Your task to perform on an android device: turn off notifications settings in the gmail app Image 0: 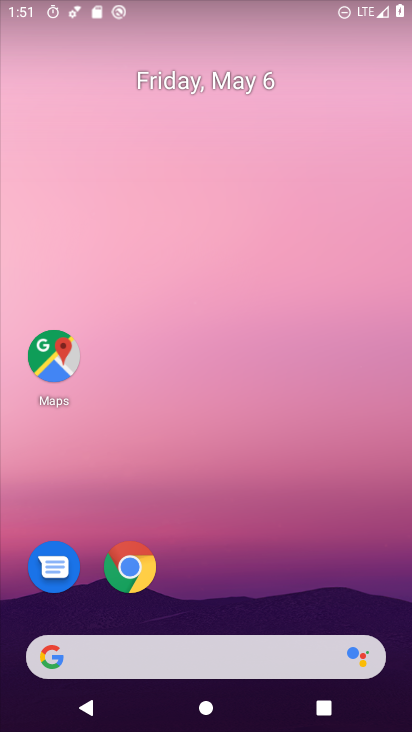
Step 0: drag from (157, 673) to (210, 160)
Your task to perform on an android device: turn off notifications settings in the gmail app Image 1: 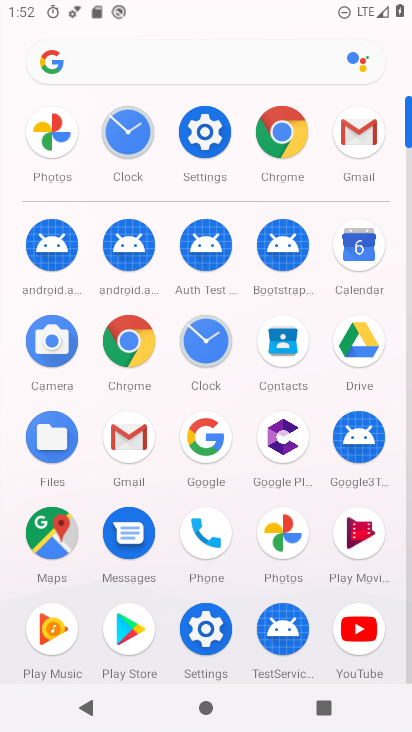
Step 1: click (355, 137)
Your task to perform on an android device: turn off notifications settings in the gmail app Image 2: 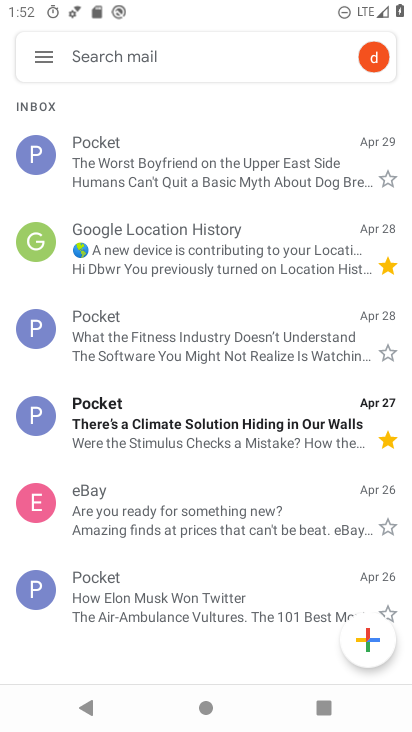
Step 2: click (49, 56)
Your task to perform on an android device: turn off notifications settings in the gmail app Image 3: 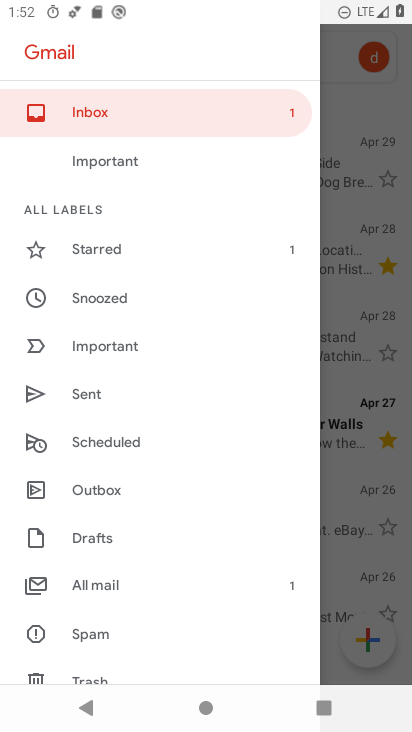
Step 3: drag from (110, 533) to (174, 179)
Your task to perform on an android device: turn off notifications settings in the gmail app Image 4: 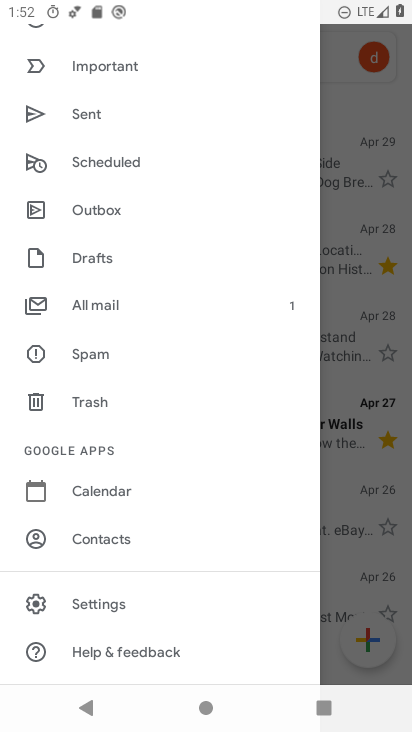
Step 4: click (104, 605)
Your task to perform on an android device: turn off notifications settings in the gmail app Image 5: 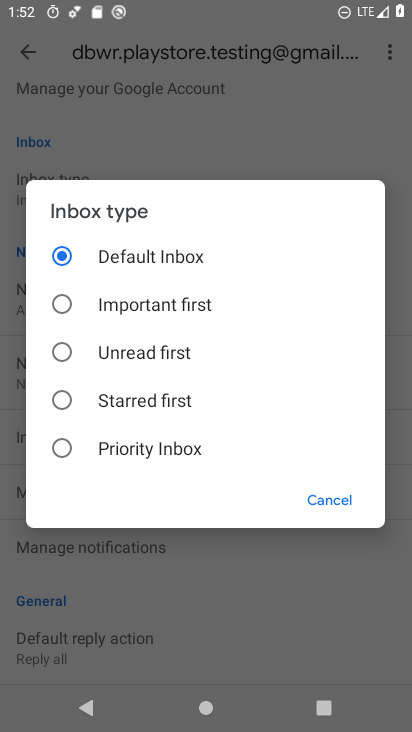
Step 5: click (320, 510)
Your task to perform on an android device: turn off notifications settings in the gmail app Image 6: 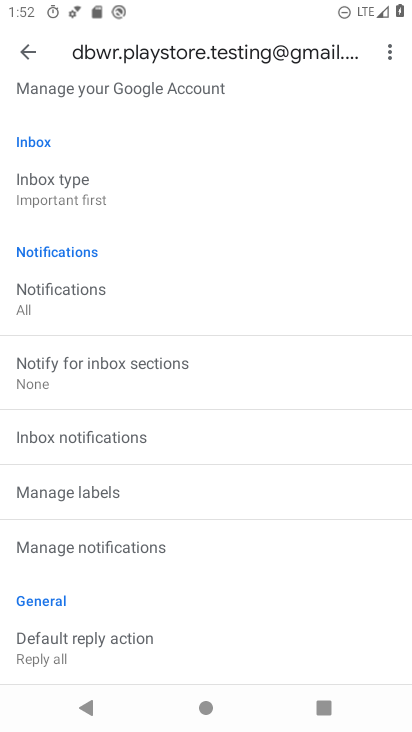
Step 6: click (84, 297)
Your task to perform on an android device: turn off notifications settings in the gmail app Image 7: 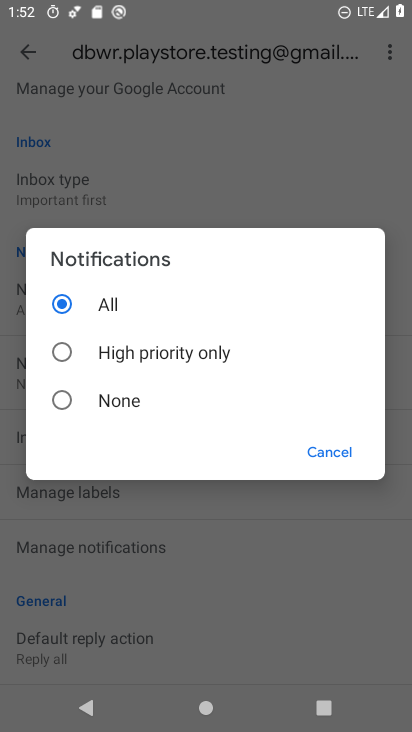
Step 7: click (167, 409)
Your task to perform on an android device: turn off notifications settings in the gmail app Image 8: 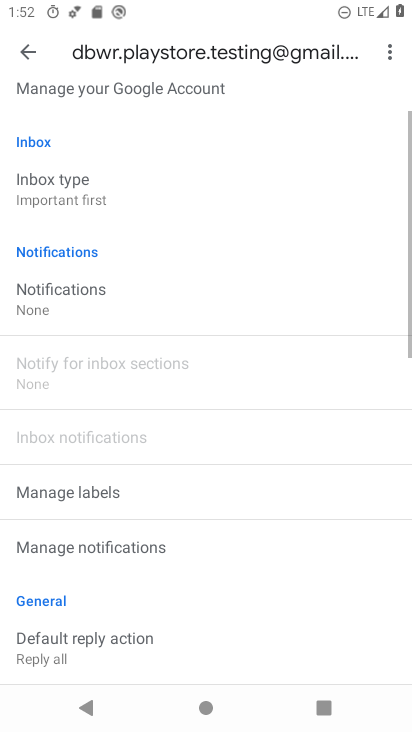
Step 8: task complete